Your task to perform on an android device: change text size in settings app Image 0: 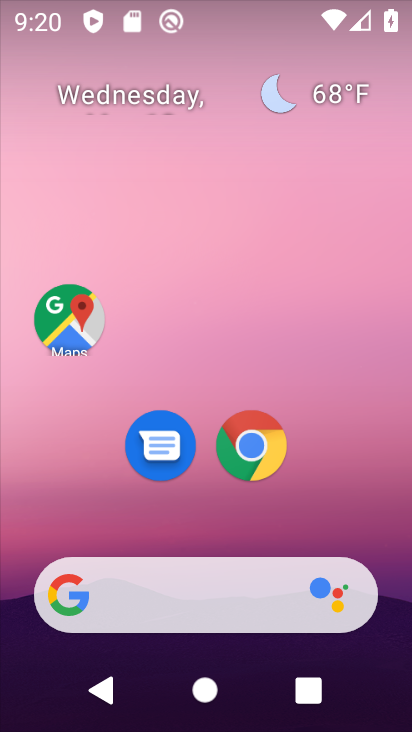
Step 0: drag from (347, 421) to (374, 0)
Your task to perform on an android device: change text size in settings app Image 1: 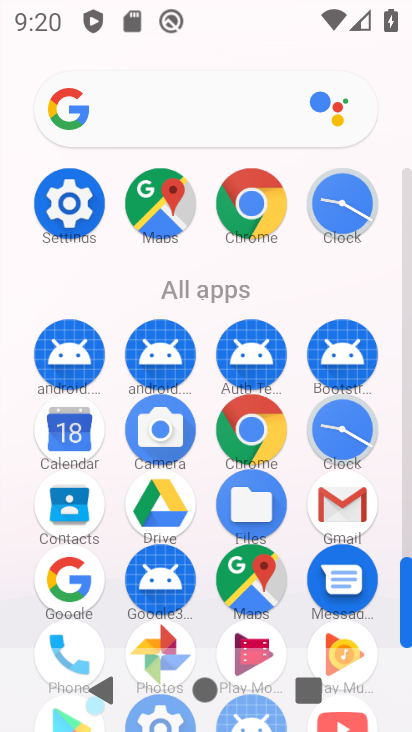
Step 1: click (79, 211)
Your task to perform on an android device: change text size in settings app Image 2: 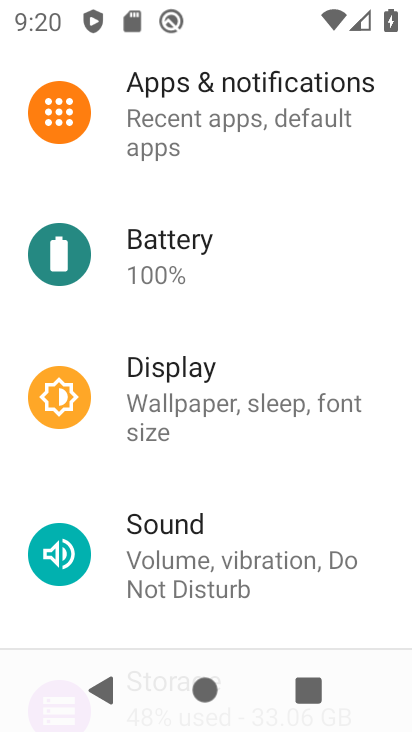
Step 2: click (222, 377)
Your task to perform on an android device: change text size in settings app Image 3: 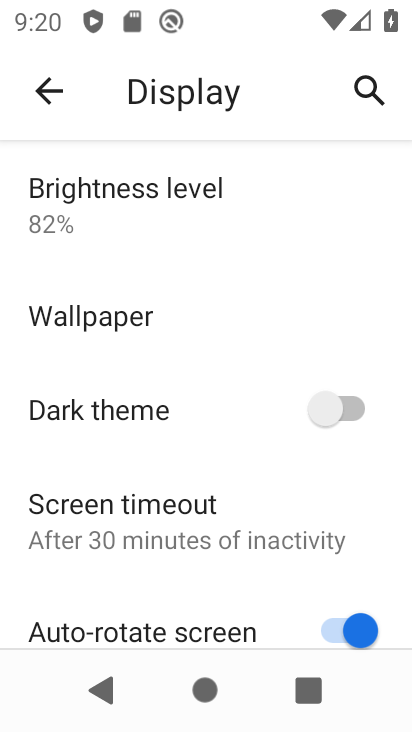
Step 3: drag from (206, 593) to (191, 197)
Your task to perform on an android device: change text size in settings app Image 4: 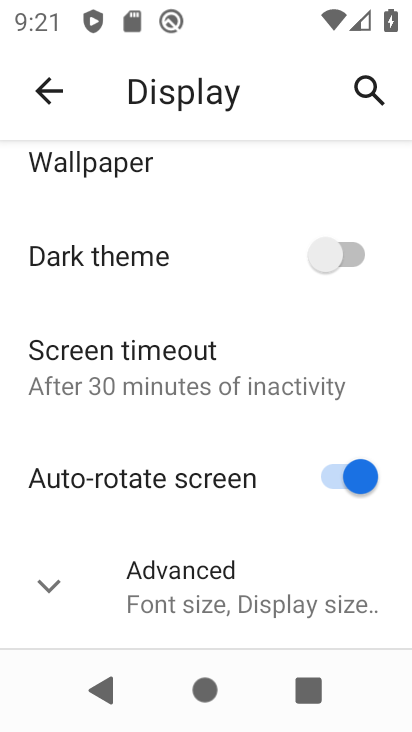
Step 4: click (219, 601)
Your task to perform on an android device: change text size in settings app Image 5: 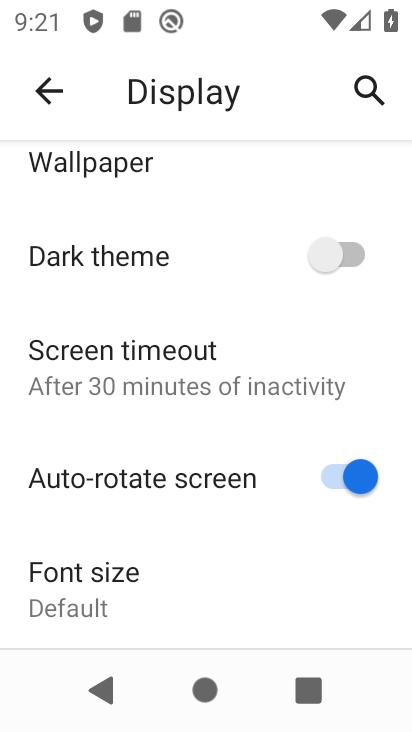
Step 5: drag from (217, 587) to (228, 210)
Your task to perform on an android device: change text size in settings app Image 6: 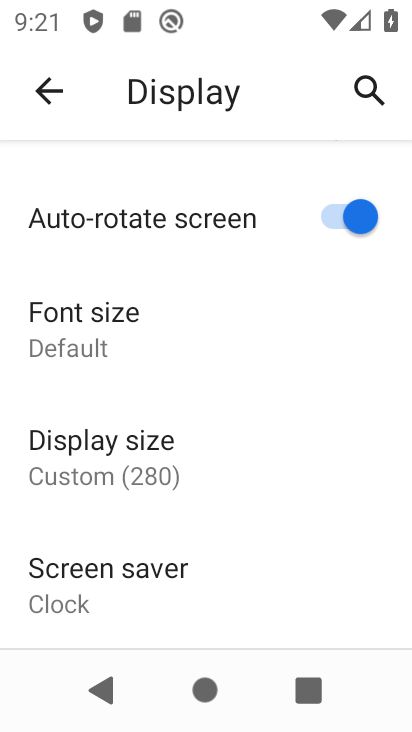
Step 6: drag from (227, 589) to (218, 281)
Your task to perform on an android device: change text size in settings app Image 7: 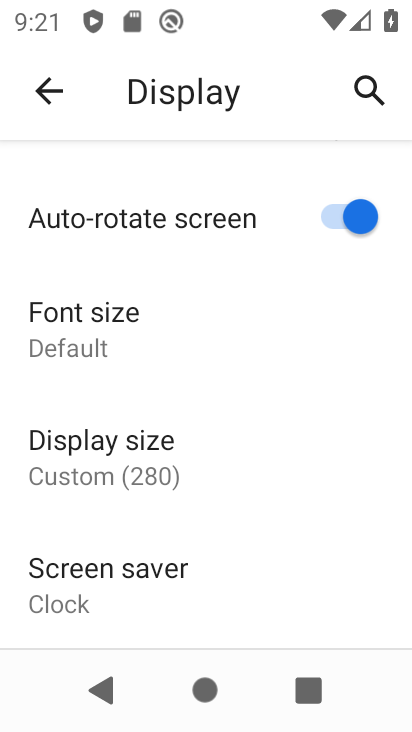
Step 7: drag from (222, 539) to (224, 267)
Your task to perform on an android device: change text size in settings app Image 8: 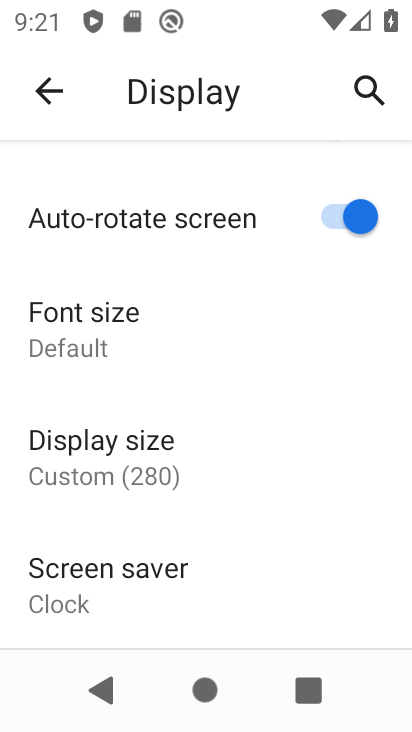
Step 8: click (99, 321)
Your task to perform on an android device: change text size in settings app Image 9: 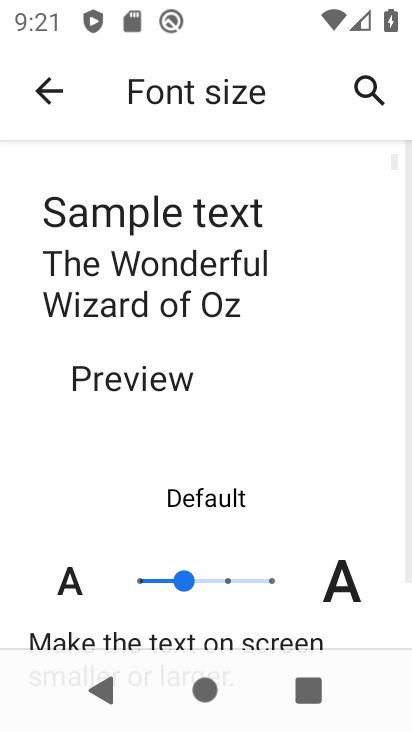
Step 9: click (229, 574)
Your task to perform on an android device: change text size in settings app Image 10: 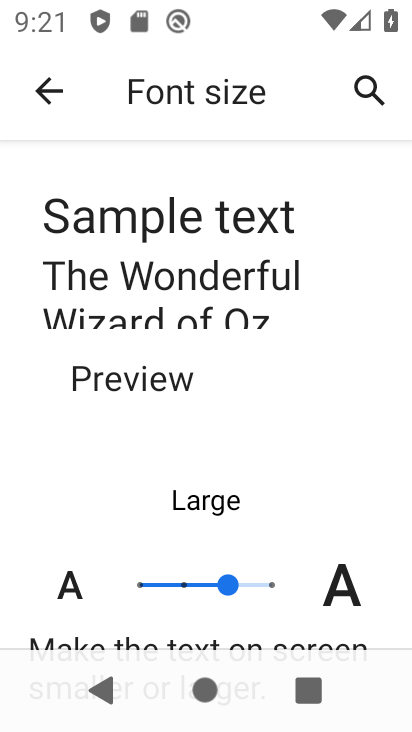
Step 10: task complete